Your task to perform on an android device: make emails show in primary in the gmail app Image 0: 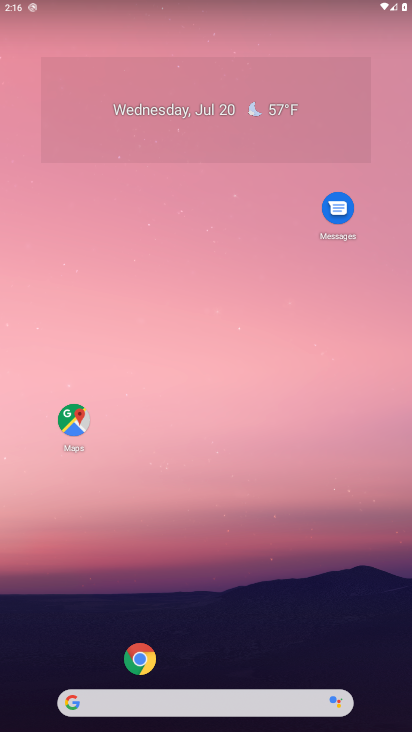
Step 0: drag from (46, 647) to (220, 189)
Your task to perform on an android device: make emails show in primary in the gmail app Image 1: 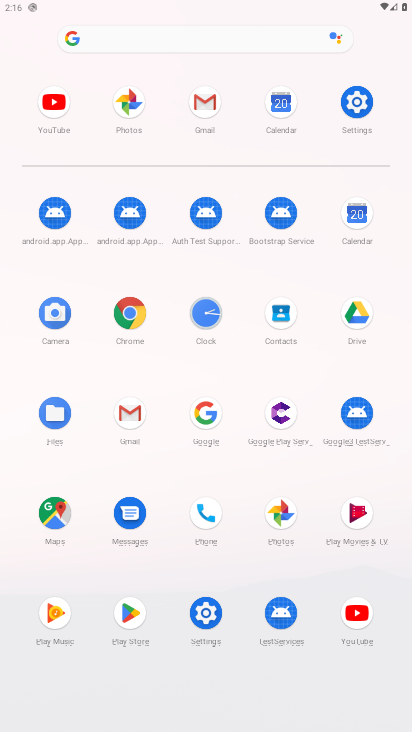
Step 1: click (129, 410)
Your task to perform on an android device: make emails show in primary in the gmail app Image 2: 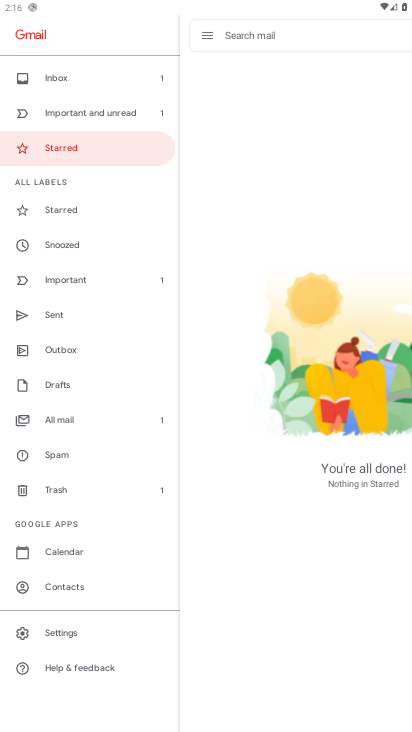
Step 2: click (89, 82)
Your task to perform on an android device: make emails show in primary in the gmail app Image 3: 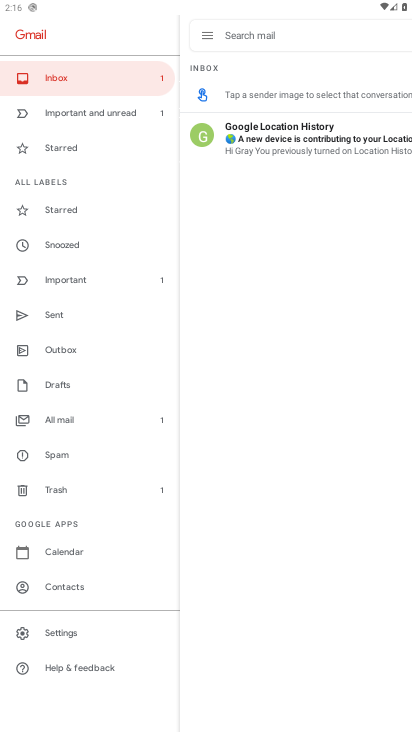
Step 3: click (73, 641)
Your task to perform on an android device: make emails show in primary in the gmail app Image 4: 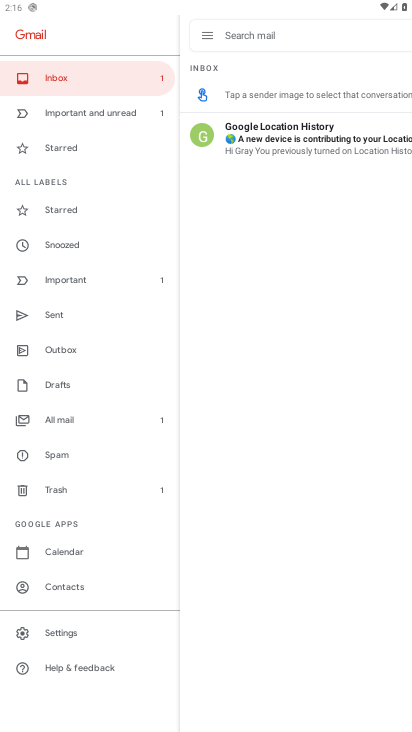
Step 4: click (73, 639)
Your task to perform on an android device: make emails show in primary in the gmail app Image 5: 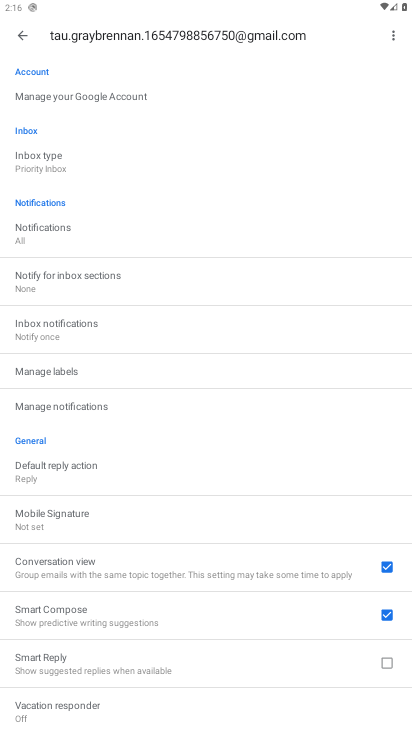
Step 5: task complete